Your task to perform on an android device: Go to Google Image 0: 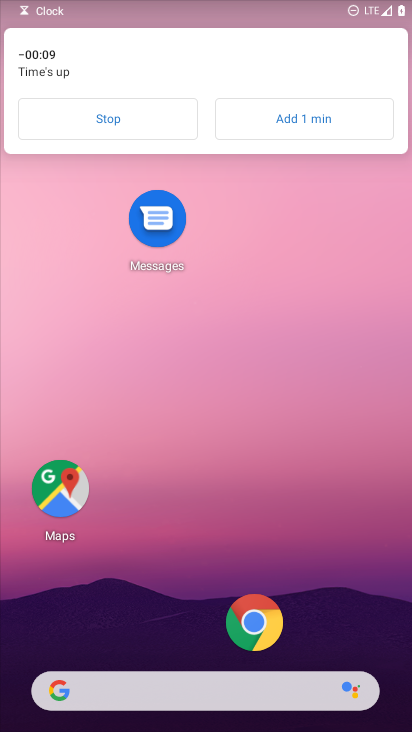
Step 0: press home button
Your task to perform on an android device: Go to Google Image 1: 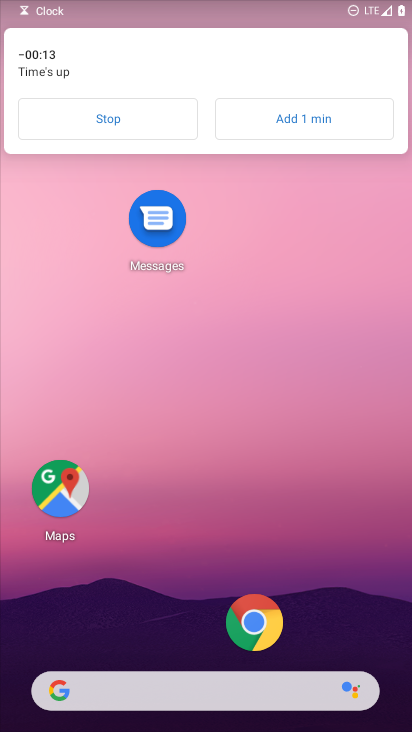
Step 1: click (67, 126)
Your task to perform on an android device: Go to Google Image 2: 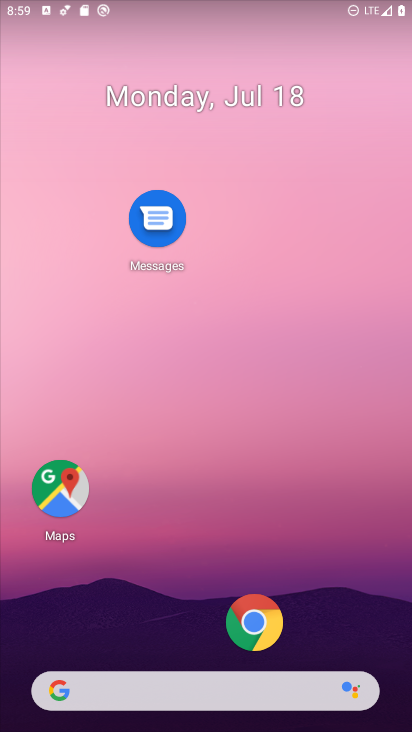
Step 2: drag from (235, 361) to (315, 83)
Your task to perform on an android device: Go to Google Image 3: 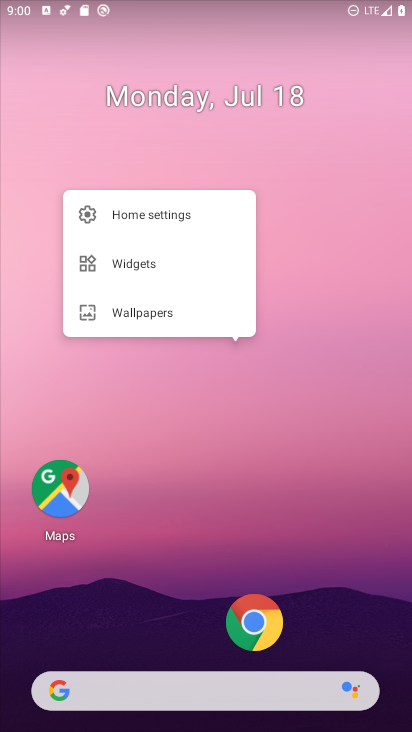
Step 3: drag from (258, 674) to (331, 181)
Your task to perform on an android device: Go to Google Image 4: 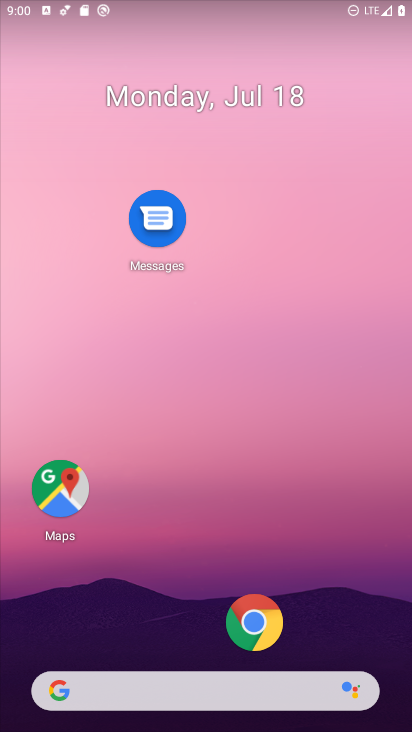
Step 4: drag from (348, 639) to (346, 139)
Your task to perform on an android device: Go to Google Image 5: 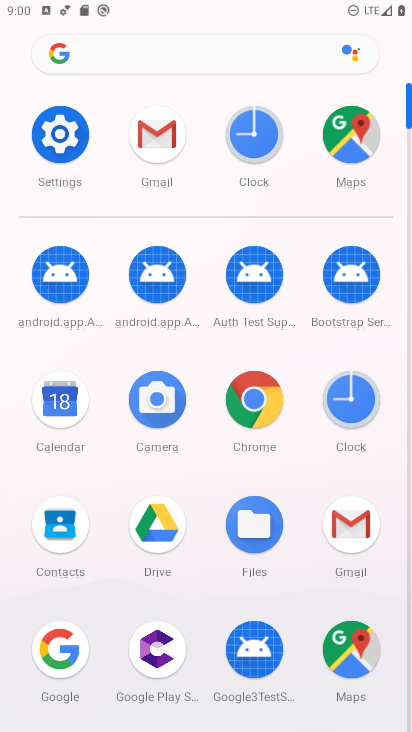
Step 5: drag from (245, 521) to (258, 185)
Your task to perform on an android device: Go to Google Image 6: 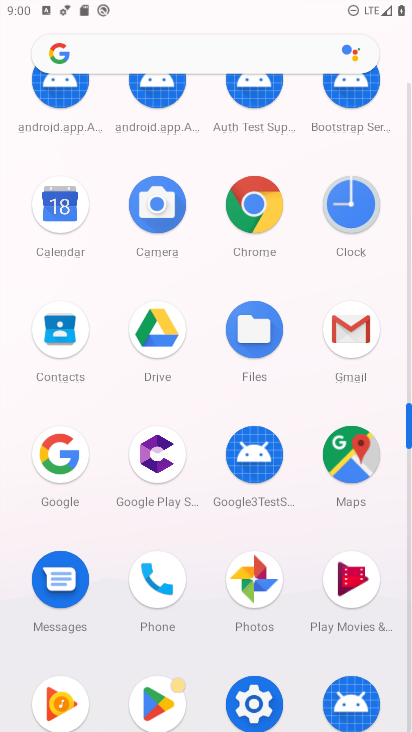
Step 6: click (72, 473)
Your task to perform on an android device: Go to Google Image 7: 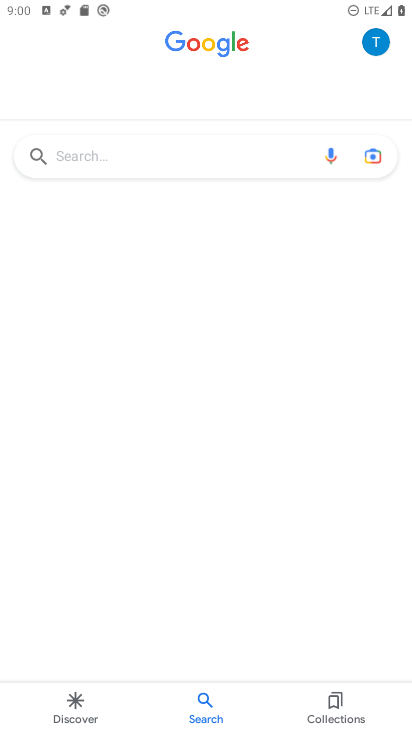
Step 7: task complete